Your task to perform on an android device: What's the weather today? Image 0: 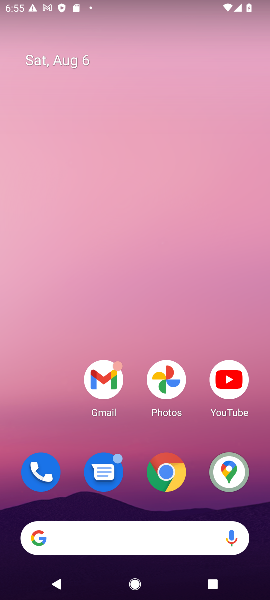
Step 0: click (112, 538)
Your task to perform on an android device: What's the weather today? Image 1: 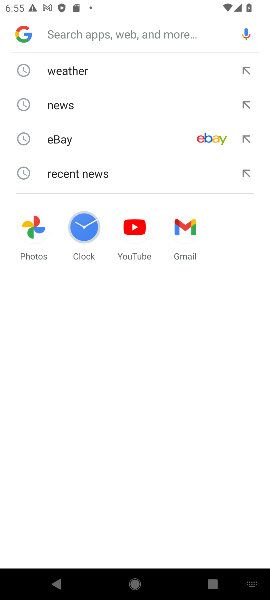
Step 1: click (72, 65)
Your task to perform on an android device: What's the weather today? Image 2: 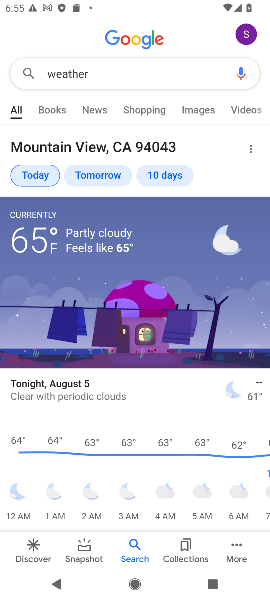
Step 2: drag from (178, 442) to (169, 279)
Your task to perform on an android device: What's the weather today? Image 3: 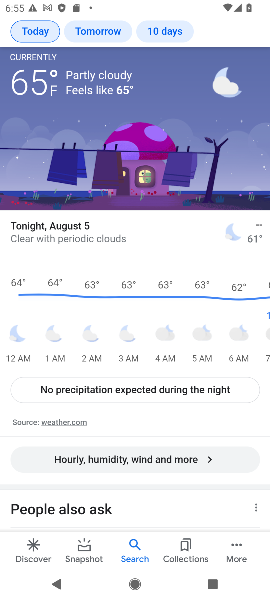
Step 3: drag from (235, 286) to (164, 289)
Your task to perform on an android device: What's the weather today? Image 4: 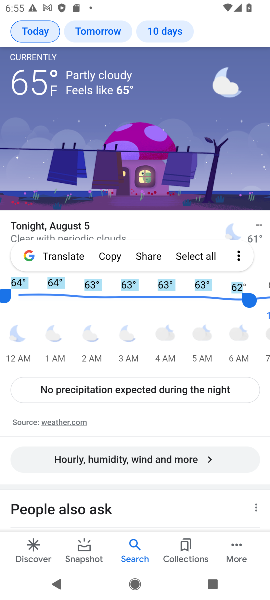
Step 4: click (228, 303)
Your task to perform on an android device: What's the weather today? Image 5: 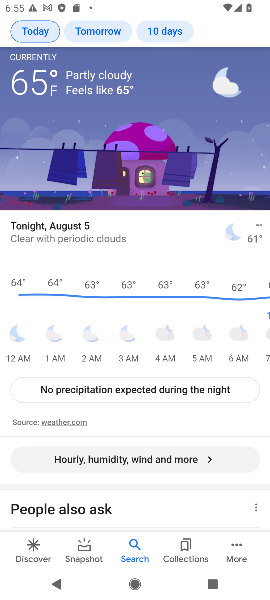
Step 5: task complete